Your task to perform on an android device: delete the emails in spam in the gmail app Image 0: 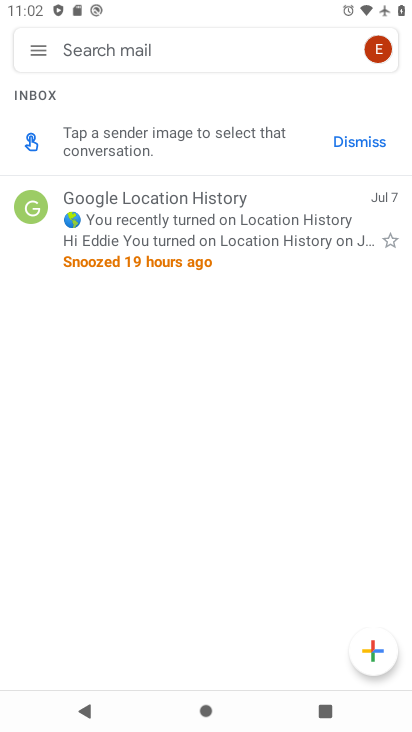
Step 0: press home button
Your task to perform on an android device: delete the emails in spam in the gmail app Image 1: 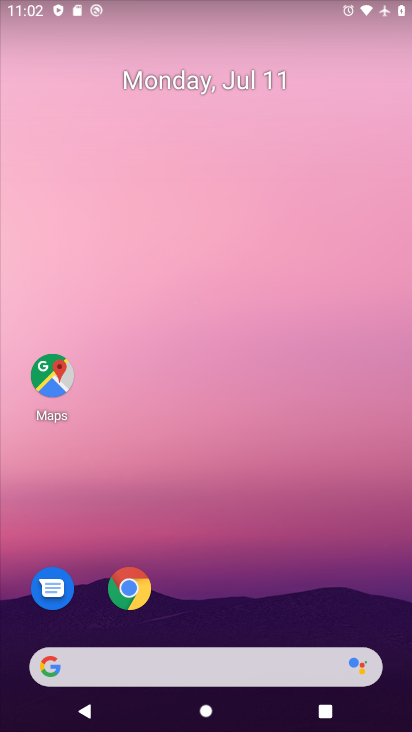
Step 1: drag from (175, 668) to (316, 66)
Your task to perform on an android device: delete the emails in spam in the gmail app Image 2: 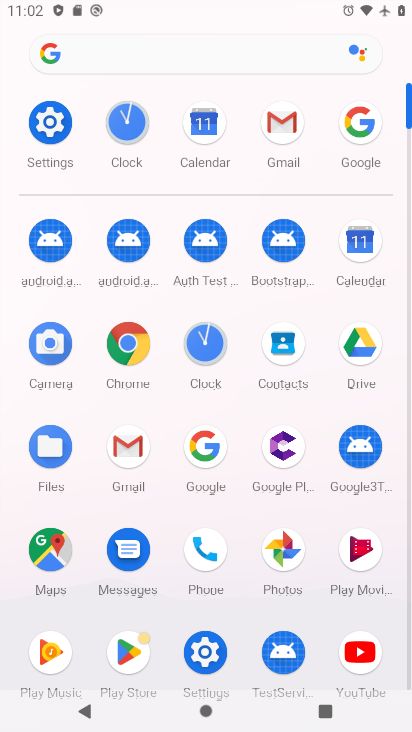
Step 2: click (286, 131)
Your task to perform on an android device: delete the emails in spam in the gmail app Image 3: 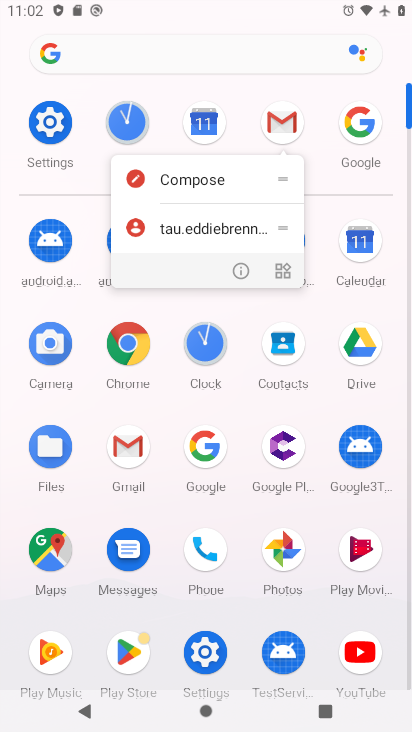
Step 3: click (285, 132)
Your task to perform on an android device: delete the emails in spam in the gmail app Image 4: 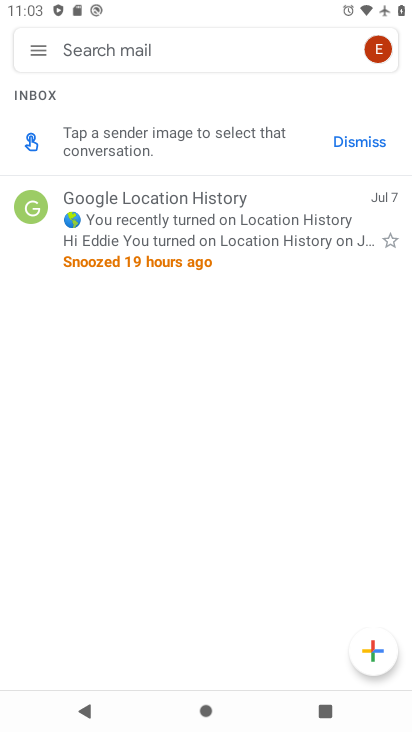
Step 4: click (41, 47)
Your task to perform on an android device: delete the emails in spam in the gmail app Image 5: 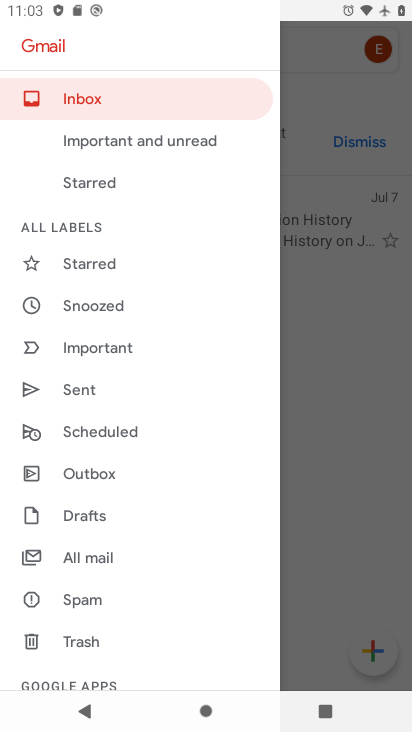
Step 5: click (91, 598)
Your task to perform on an android device: delete the emails in spam in the gmail app Image 6: 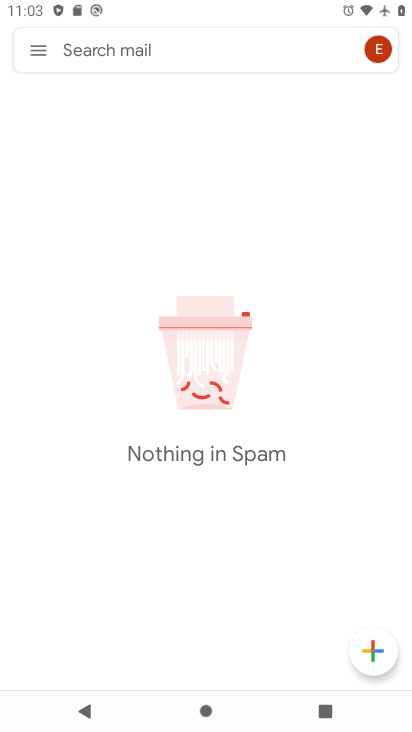
Step 6: task complete